Your task to perform on an android device: turn off notifications in google photos Image 0: 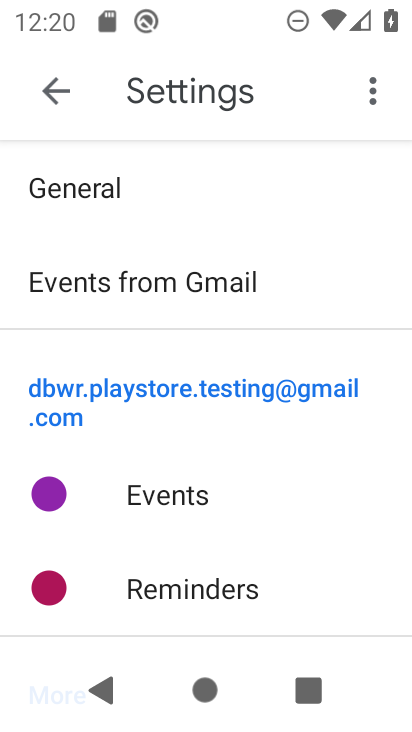
Step 0: press home button
Your task to perform on an android device: turn off notifications in google photos Image 1: 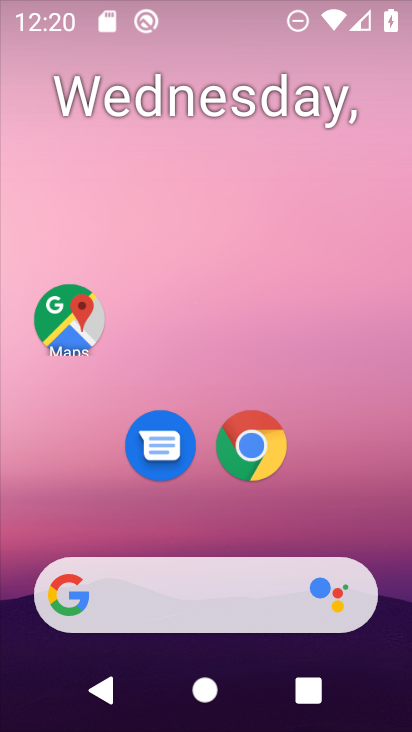
Step 1: drag from (382, 656) to (304, 9)
Your task to perform on an android device: turn off notifications in google photos Image 2: 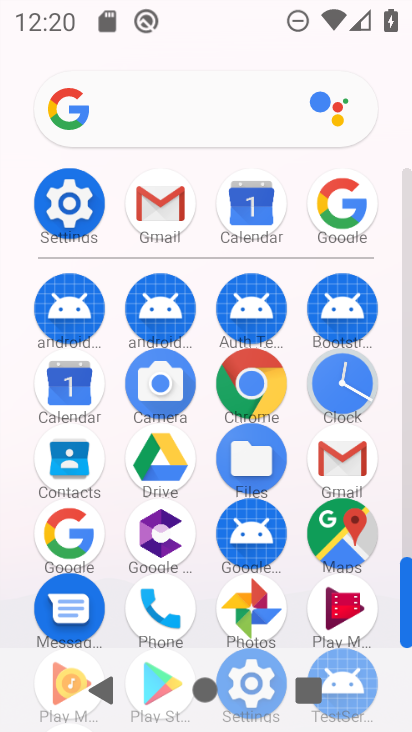
Step 2: click (256, 608)
Your task to perform on an android device: turn off notifications in google photos Image 3: 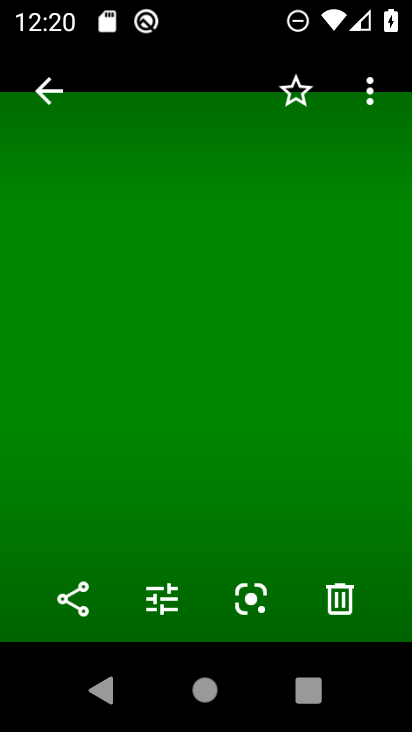
Step 3: press back button
Your task to perform on an android device: turn off notifications in google photos Image 4: 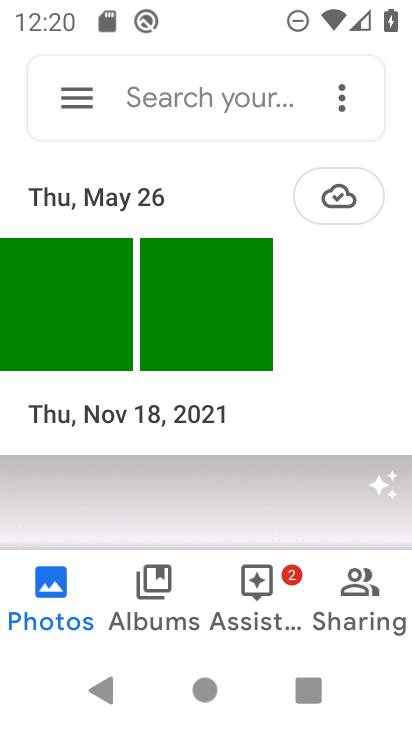
Step 4: click (68, 94)
Your task to perform on an android device: turn off notifications in google photos Image 5: 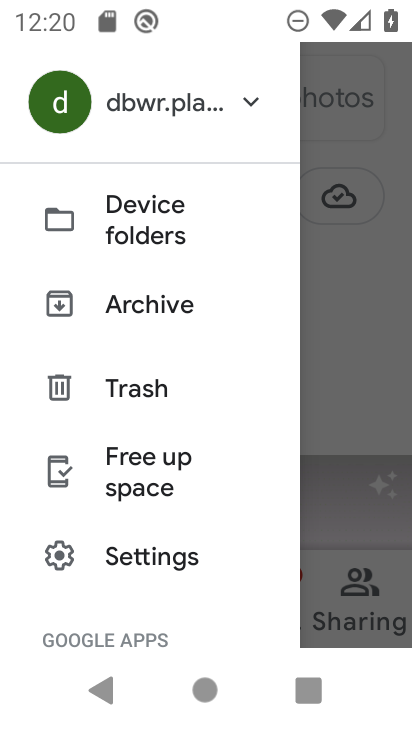
Step 5: click (169, 552)
Your task to perform on an android device: turn off notifications in google photos Image 6: 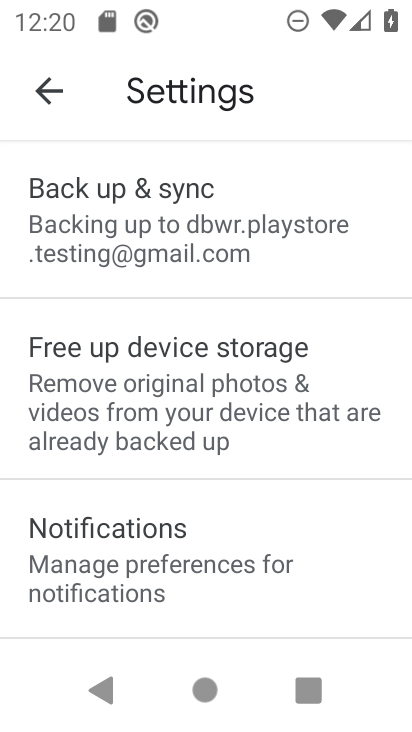
Step 6: click (196, 555)
Your task to perform on an android device: turn off notifications in google photos Image 7: 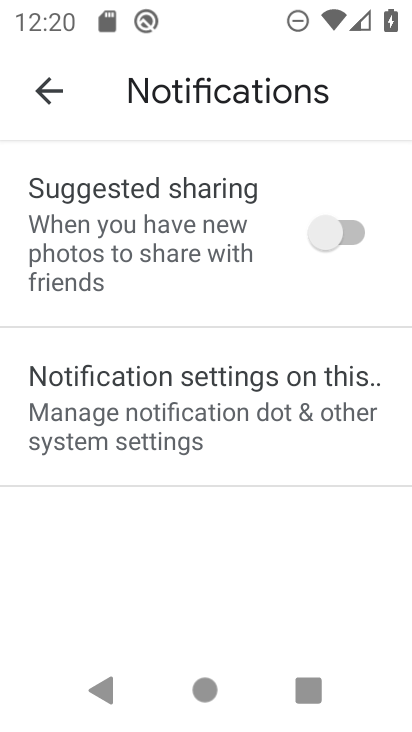
Step 7: task complete